Your task to perform on an android device: Open Google Chrome and click the shortcut for Amazon.com Image 0: 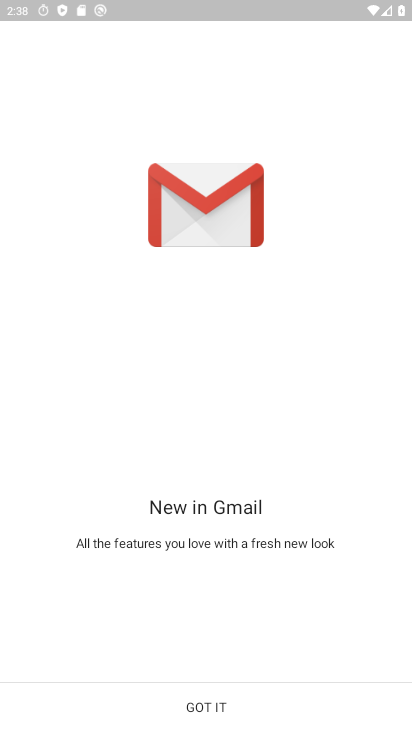
Step 0: press home button
Your task to perform on an android device: Open Google Chrome and click the shortcut for Amazon.com Image 1: 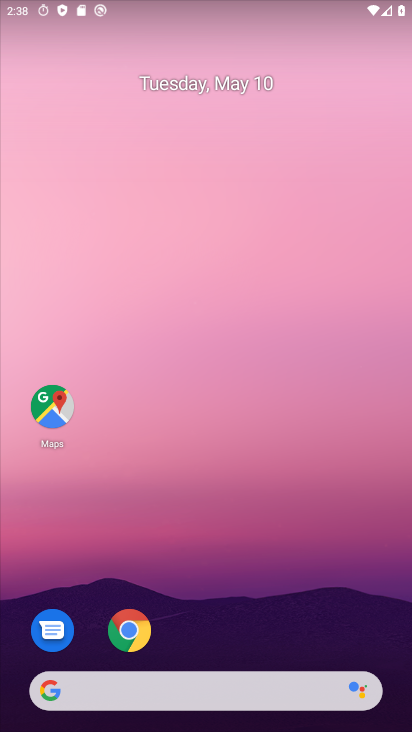
Step 1: click (132, 636)
Your task to perform on an android device: Open Google Chrome and click the shortcut for Amazon.com Image 2: 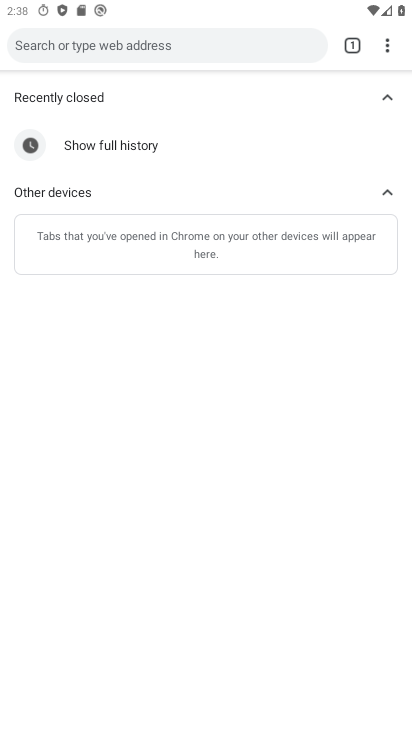
Step 2: click (345, 48)
Your task to perform on an android device: Open Google Chrome and click the shortcut for Amazon.com Image 3: 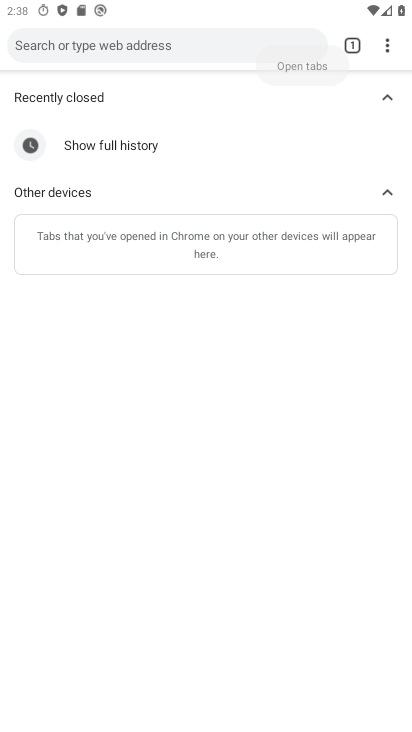
Step 3: click (353, 41)
Your task to perform on an android device: Open Google Chrome and click the shortcut for Amazon.com Image 4: 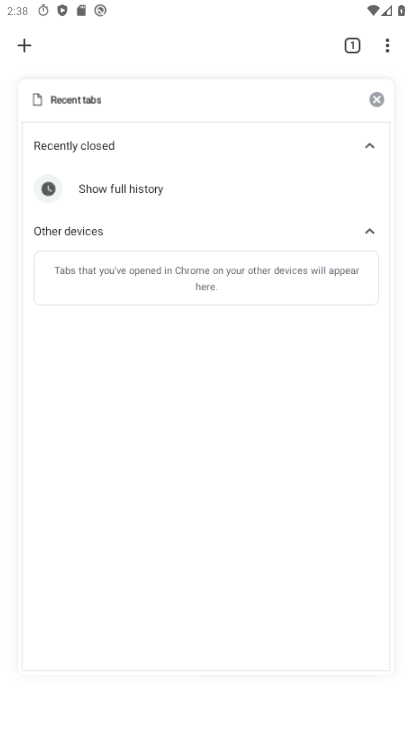
Step 4: click (351, 41)
Your task to perform on an android device: Open Google Chrome and click the shortcut for Amazon.com Image 5: 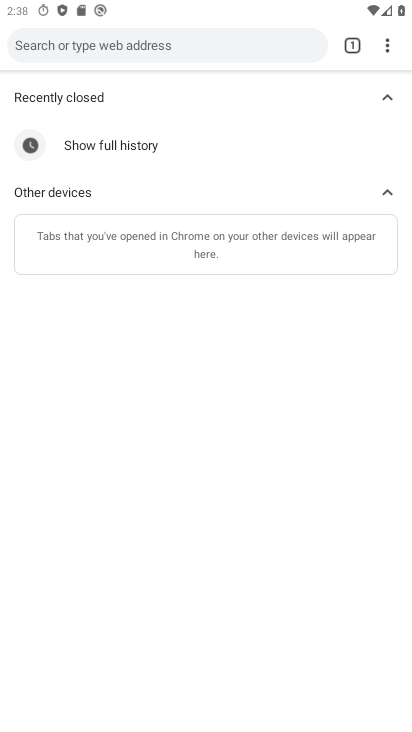
Step 5: click (388, 45)
Your task to perform on an android device: Open Google Chrome and click the shortcut for Amazon.com Image 6: 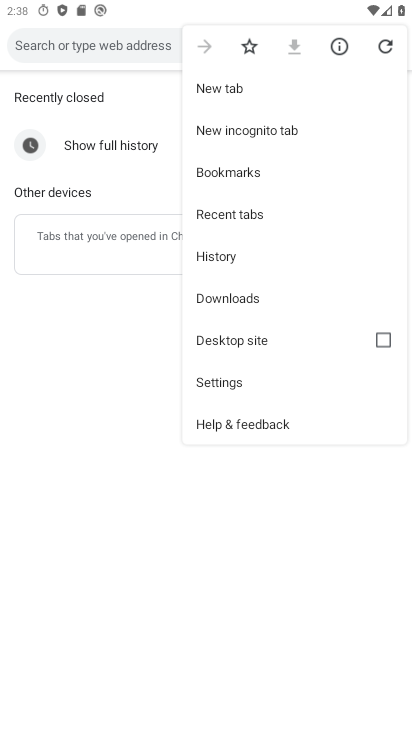
Step 6: click (246, 88)
Your task to perform on an android device: Open Google Chrome and click the shortcut for Amazon.com Image 7: 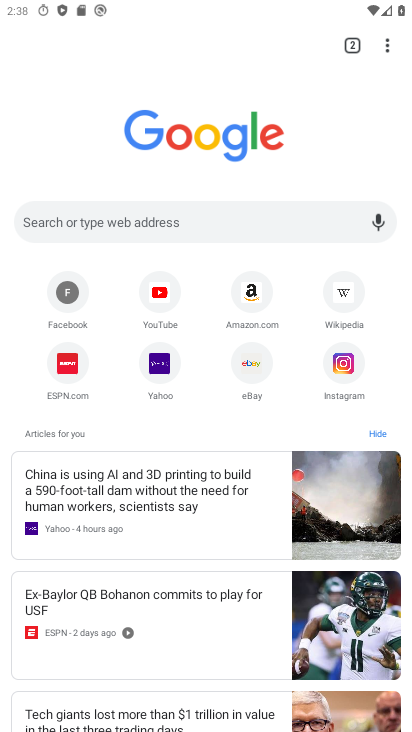
Step 7: click (257, 300)
Your task to perform on an android device: Open Google Chrome and click the shortcut for Amazon.com Image 8: 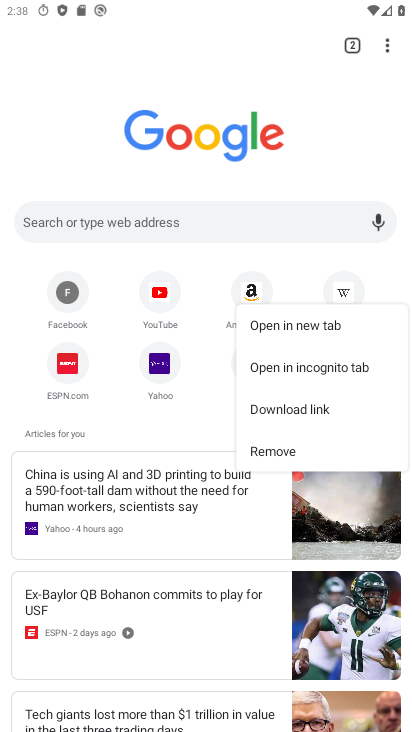
Step 8: click (254, 291)
Your task to perform on an android device: Open Google Chrome and click the shortcut for Amazon.com Image 9: 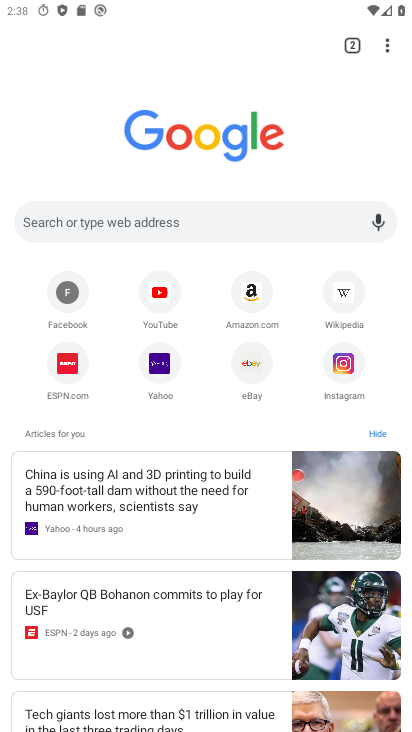
Step 9: click (250, 291)
Your task to perform on an android device: Open Google Chrome and click the shortcut for Amazon.com Image 10: 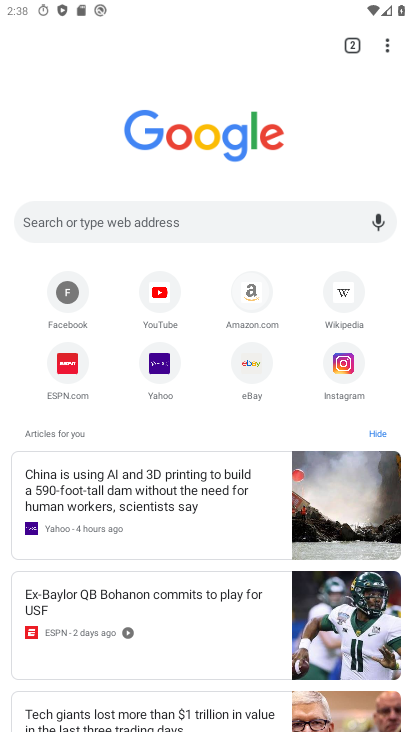
Step 10: click (250, 291)
Your task to perform on an android device: Open Google Chrome and click the shortcut for Amazon.com Image 11: 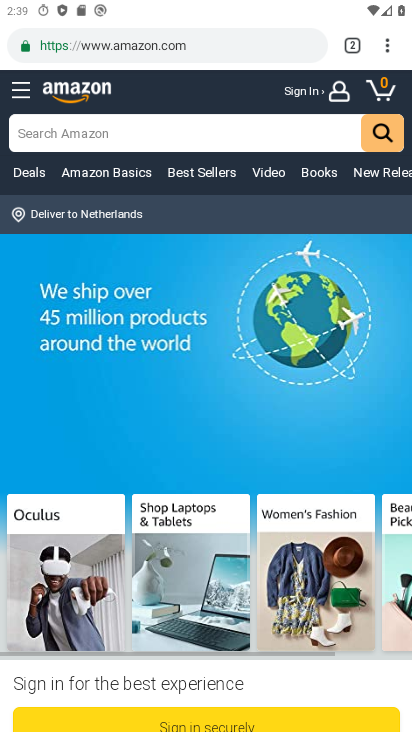
Step 11: task complete